Your task to perform on an android device: Open Google Maps Image 0: 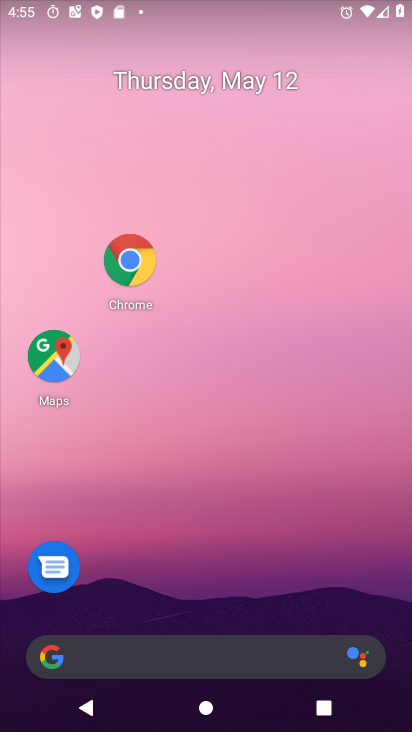
Step 0: click (34, 349)
Your task to perform on an android device: Open Google Maps Image 1: 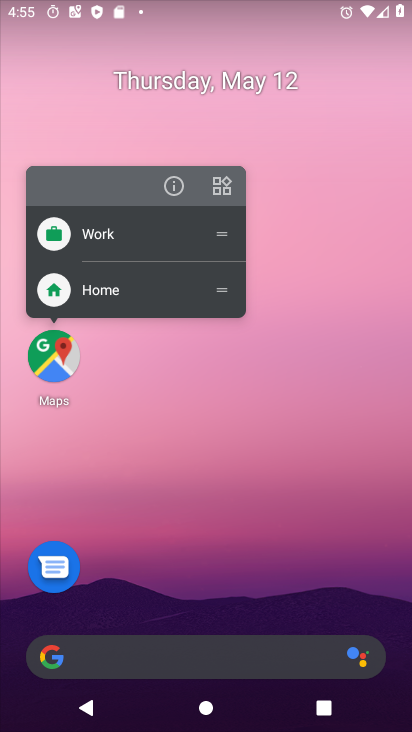
Step 1: click (53, 364)
Your task to perform on an android device: Open Google Maps Image 2: 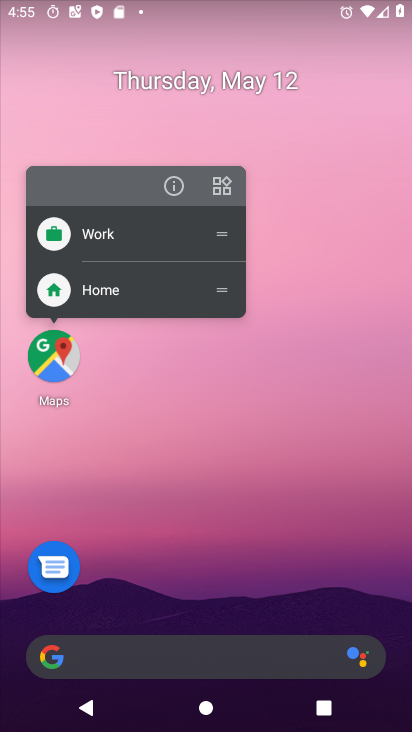
Step 2: click (61, 360)
Your task to perform on an android device: Open Google Maps Image 3: 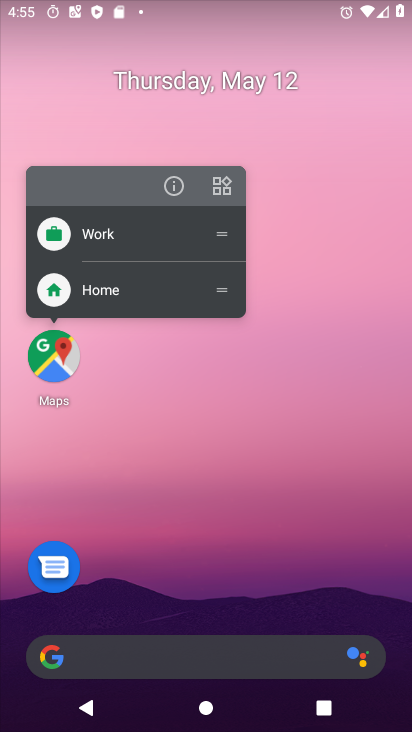
Step 3: click (61, 360)
Your task to perform on an android device: Open Google Maps Image 4: 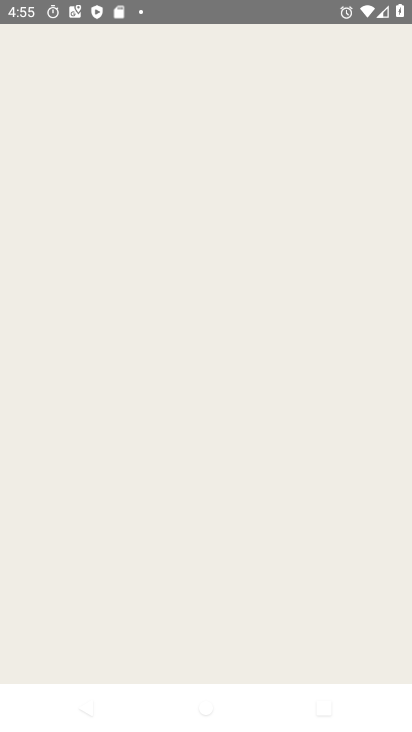
Step 4: click (56, 363)
Your task to perform on an android device: Open Google Maps Image 5: 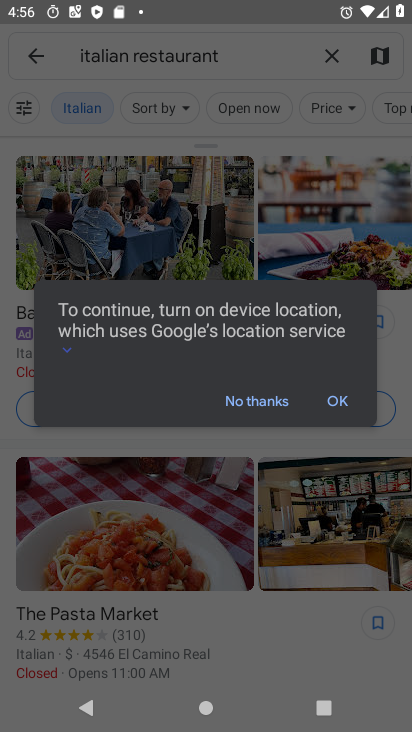
Step 5: click (338, 407)
Your task to perform on an android device: Open Google Maps Image 6: 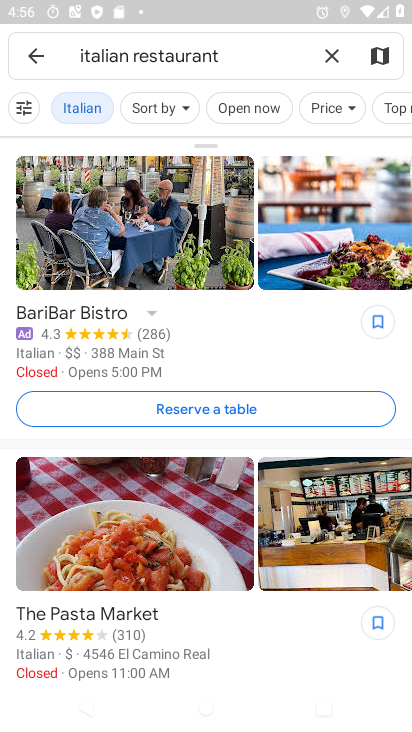
Step 6: click (332, 53)
Your task to perform on an android device: Open Google Maps Image 7: 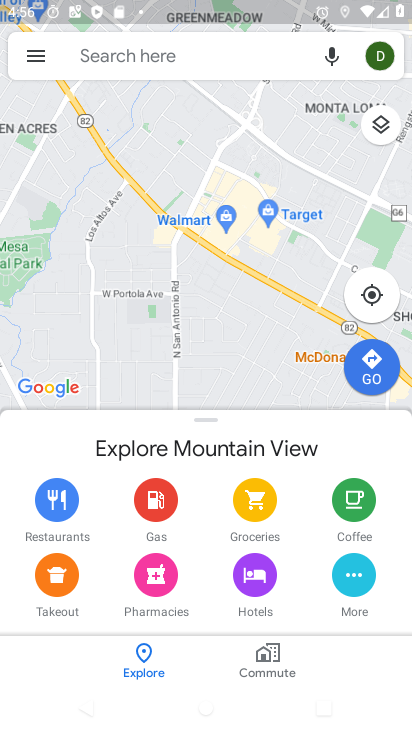
Step 7: task complete